Your task to perform on an android device: Open Google Maps and go to "Timeline" Image 0: 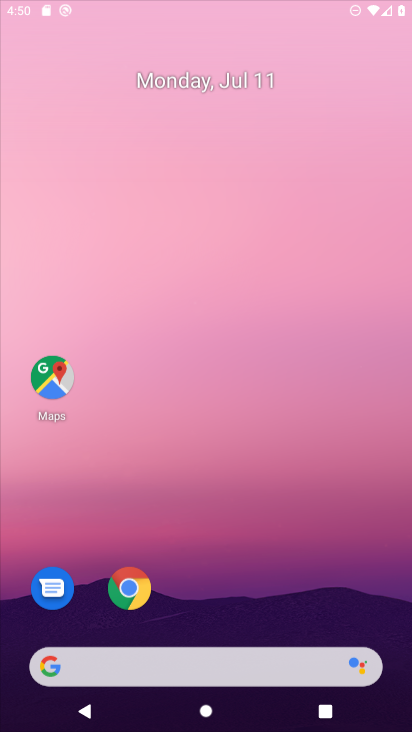
Step 0: press home button
Your task to perform on an android device: Open Google Maps and go to "Timeline" Image 1: 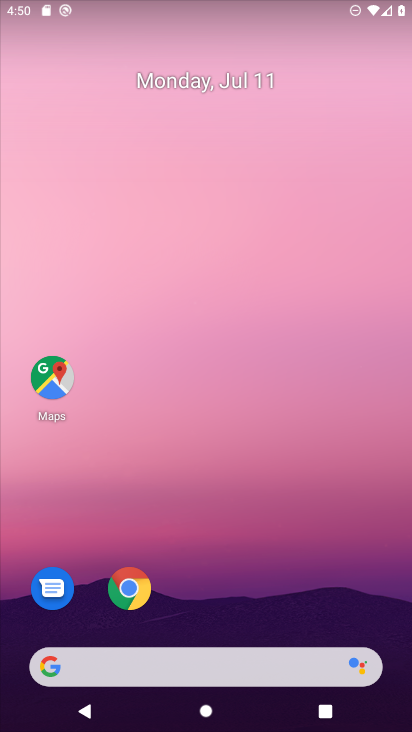
Step 1: press home button
Your task to perform on an android device: Open Google Maps and go to "Timeline" Image 2: 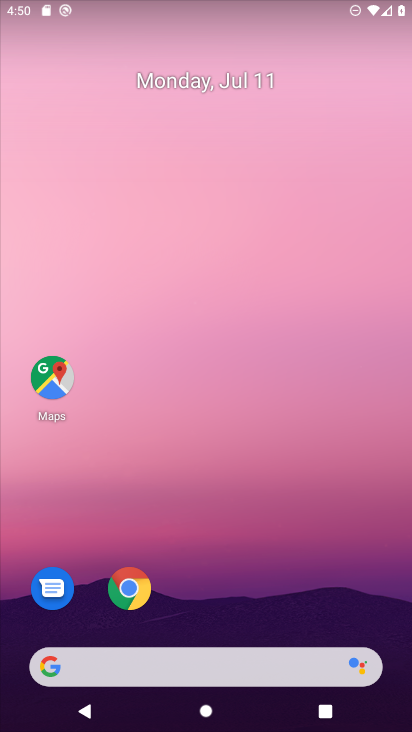
Step 2: drag from (223, 626) to (189, 86)
Your task to perform on an android device: Open Google Maps and go to "Timeline" Image 3: 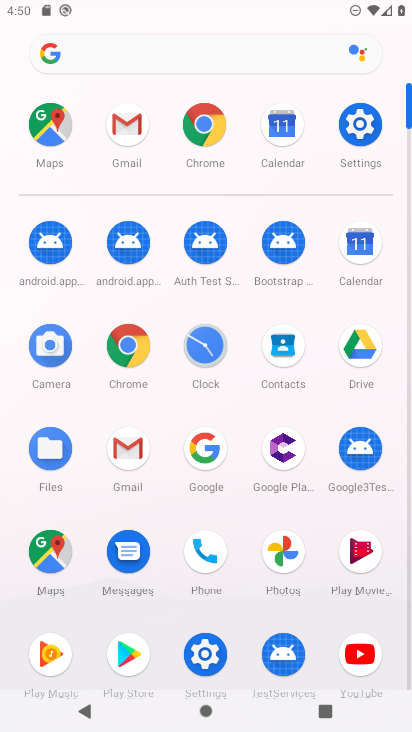
Step 3: click (56, 119)
Your task to perform on an android device: Open Google Maps and go to "Timeline" Image 4: 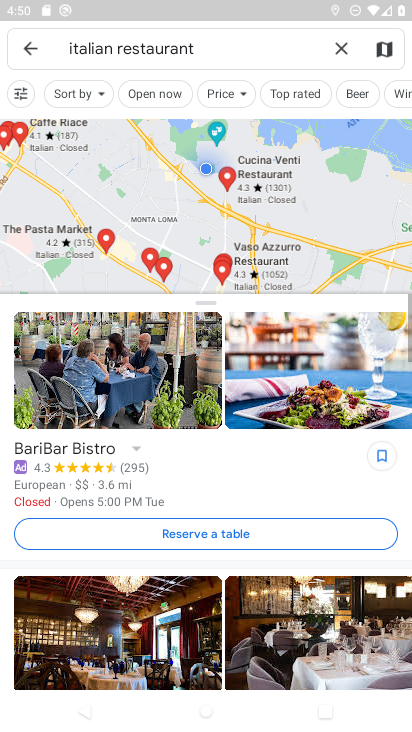
Step 4: press back button
Your task to perform on an android device: Open Google Maps and go to "Timeline" Image 5: 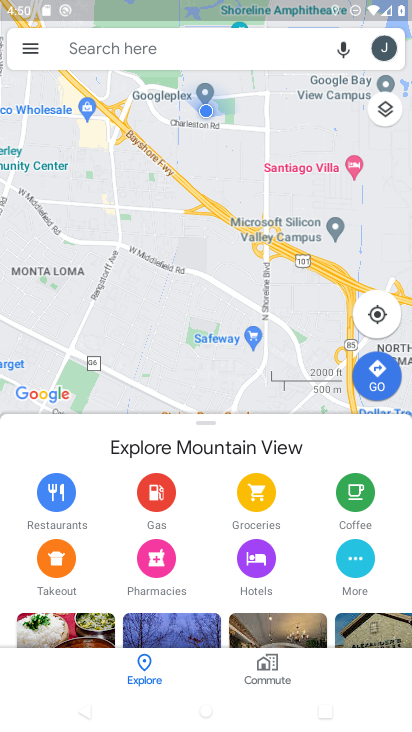
Step 5: click (29, 46)
Your task to perform on an android device: Open Google Maps and go to "Timeline" Image 6: 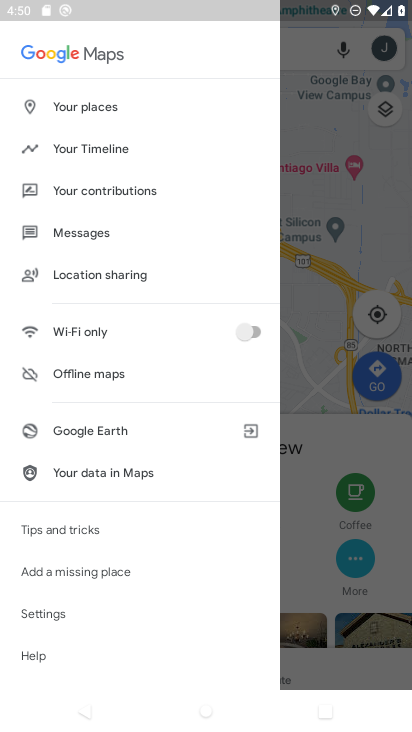
Step 6: click (86, 145)
Your task to perform on an android device: Open Google Maps and go to "Timeline" Image 7: 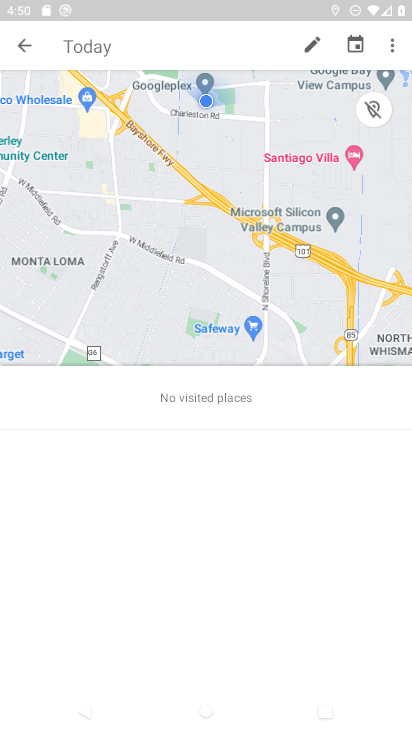
Step 7: task complete